Your task to perform on an android device: Open maps Image 0: 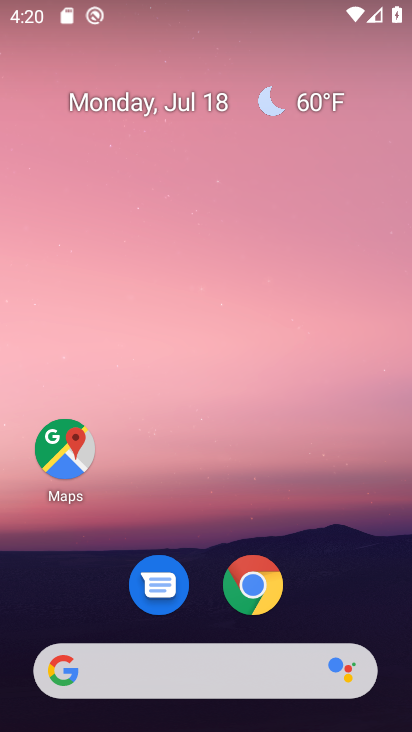
Step 0: click (62, 455)
Your task to perform on an android device: Open maps Image 1: 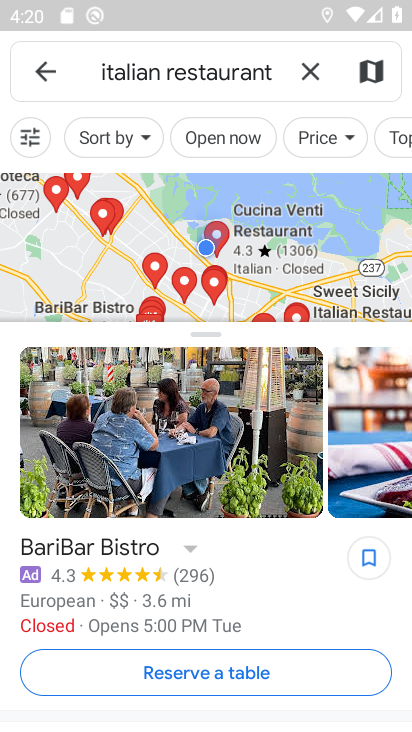
Step 1: click (50, 65)
Your task to perform on an android device: Open maps Image 2: 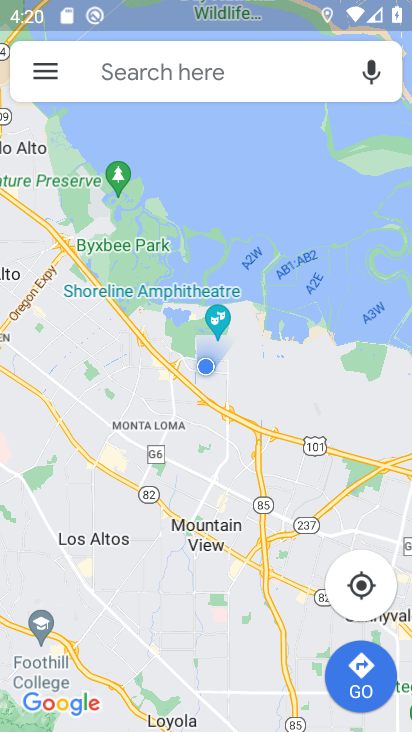
Step 2: task complete